Your task to perform on an android device: uninstall "Google Docs" Image 0: 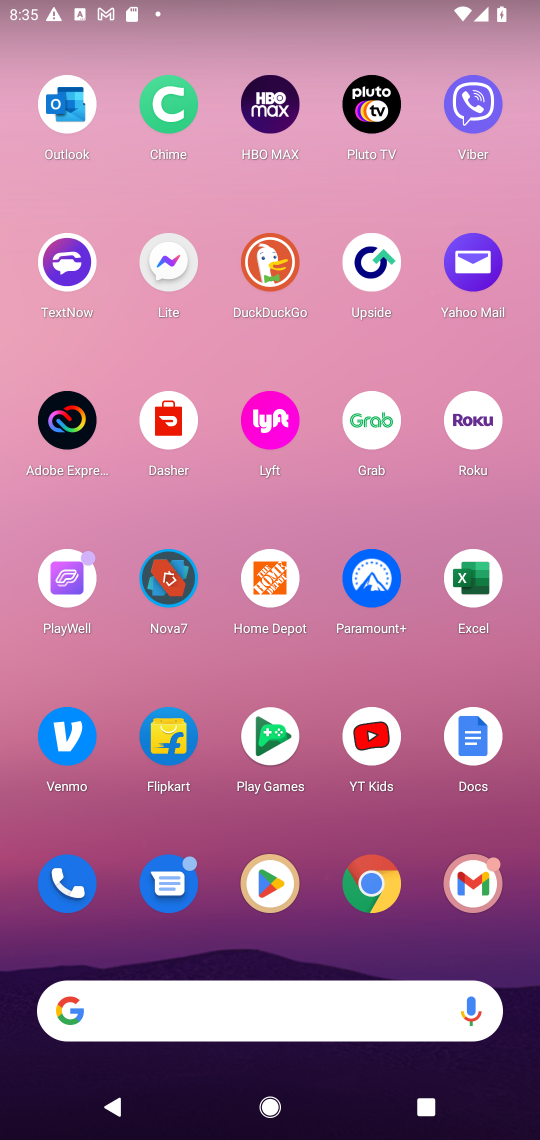
Step 0: click (240, 865)
Your task to perform on an android device: uninstall "Google Docs" Image 1: 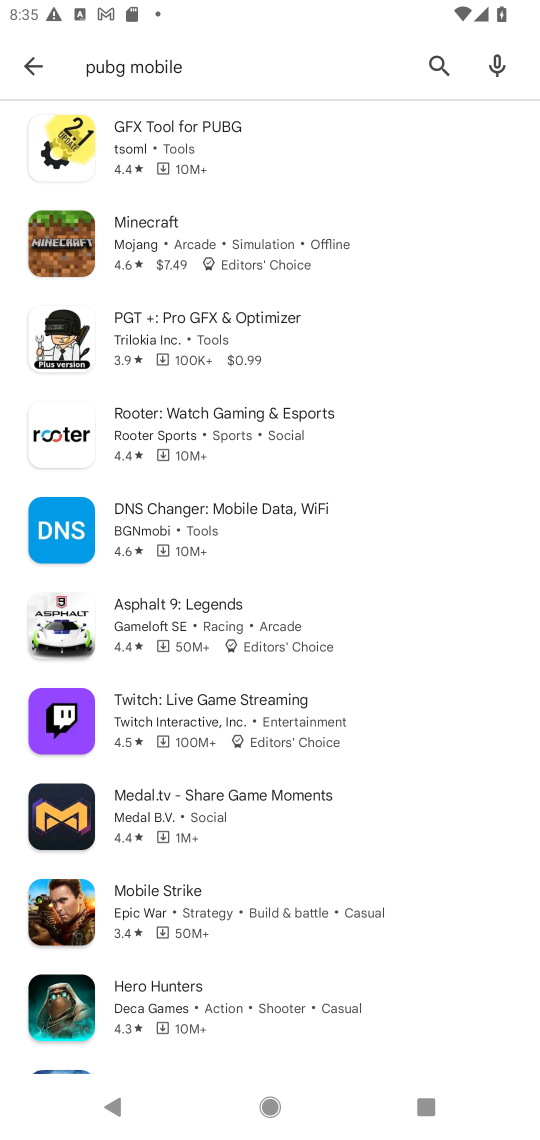
Step 1: click (440, 65)
Your task to perform on an android device: uninstall "Google Docs" Image 2: 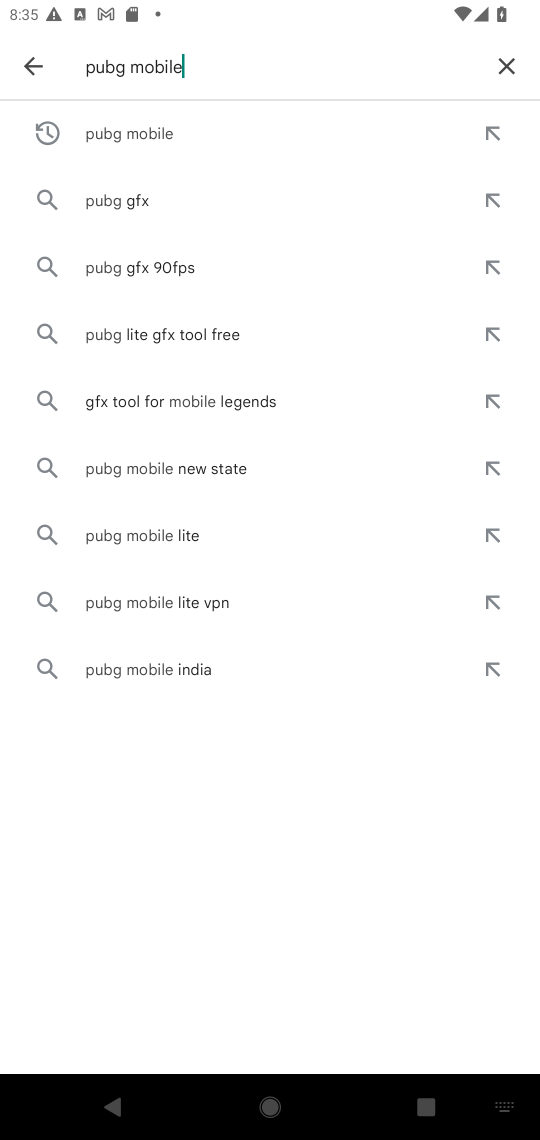
Step 2: click (490, 56)
Your task to perform on an android device: uninstall "Google Docs" Image 3: 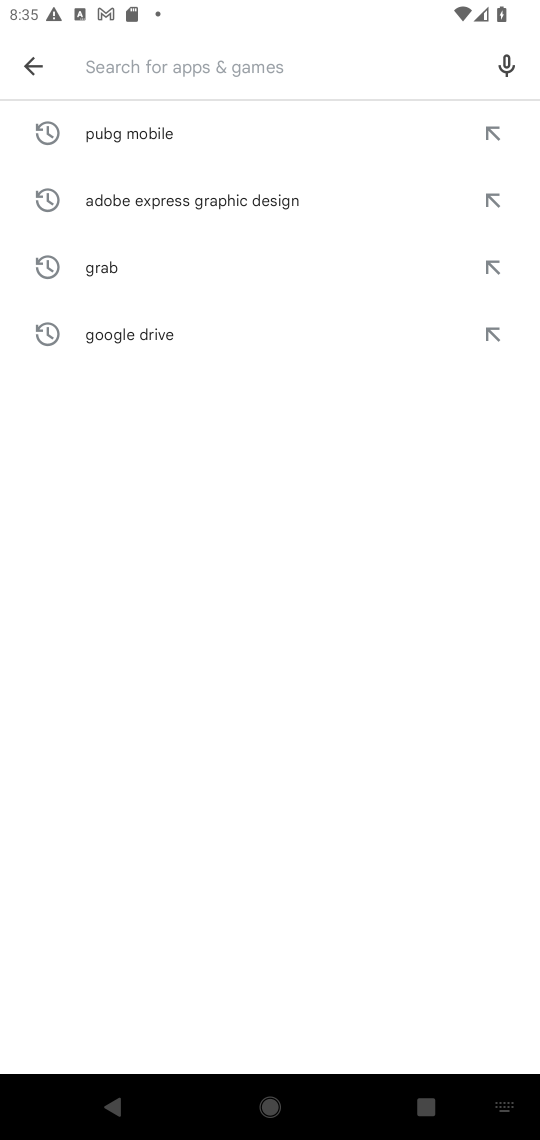
Step 3: click (120, 84)
Your task to perform on an android device: uninstall "Google Docs" Image 4: 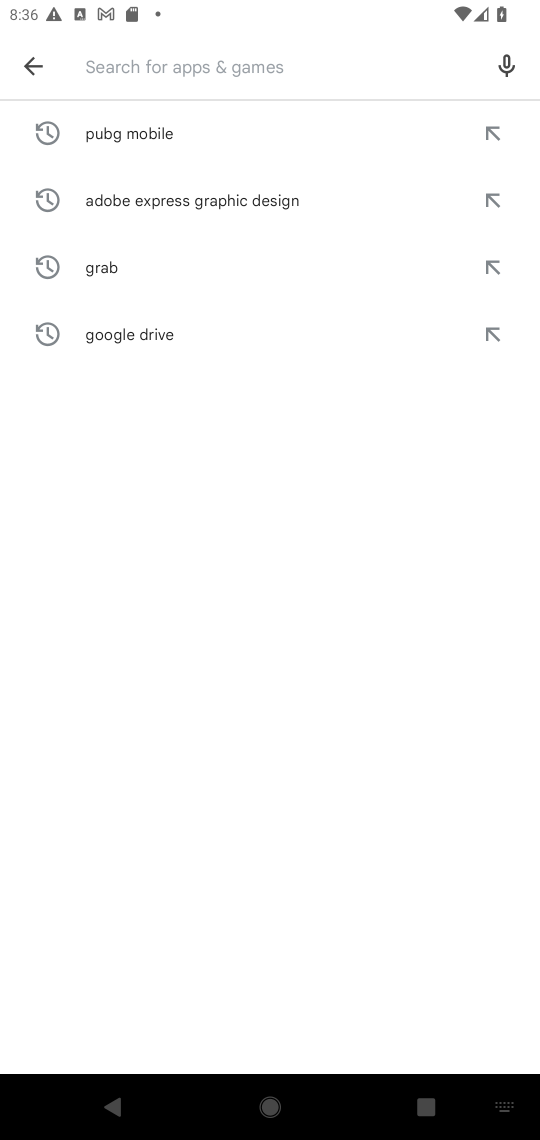
Step 4: type "Google Docs"
Your task to perform on an android device: uninstall "Google Docs" Image 5: 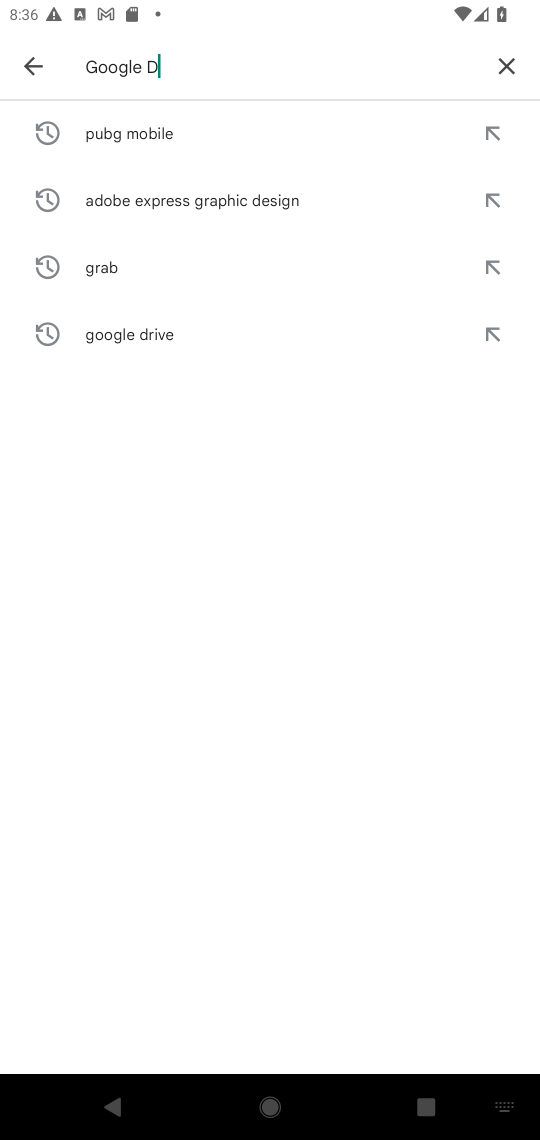
Step 5: type ""
Your task to perform on an android device: uninstall "Google Docs" Image 6: 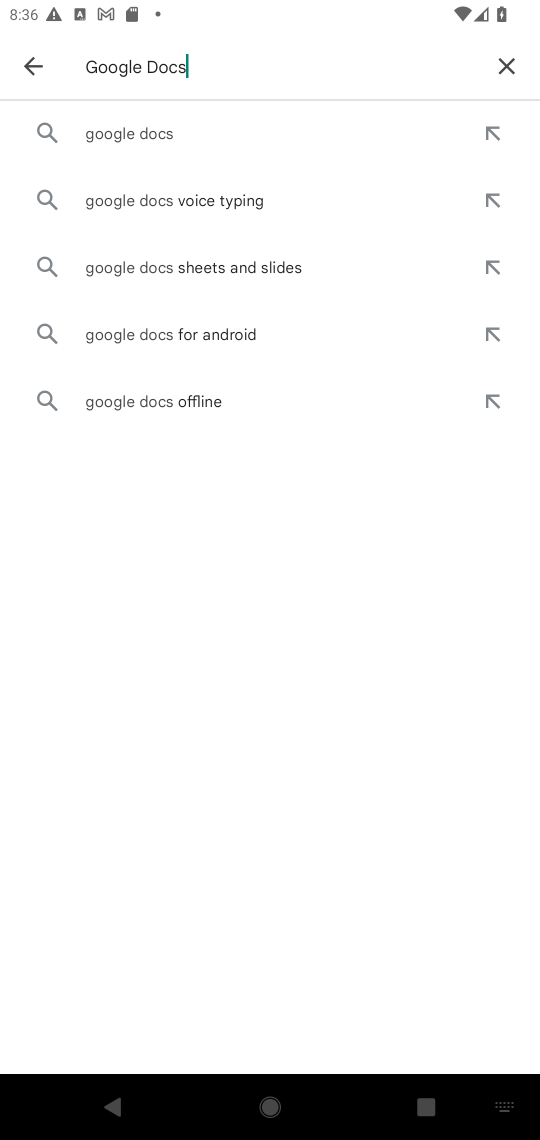
Step 6: click (137, 137)
Your task to perform on an android device: uninstall "Google Docs" Image 7: 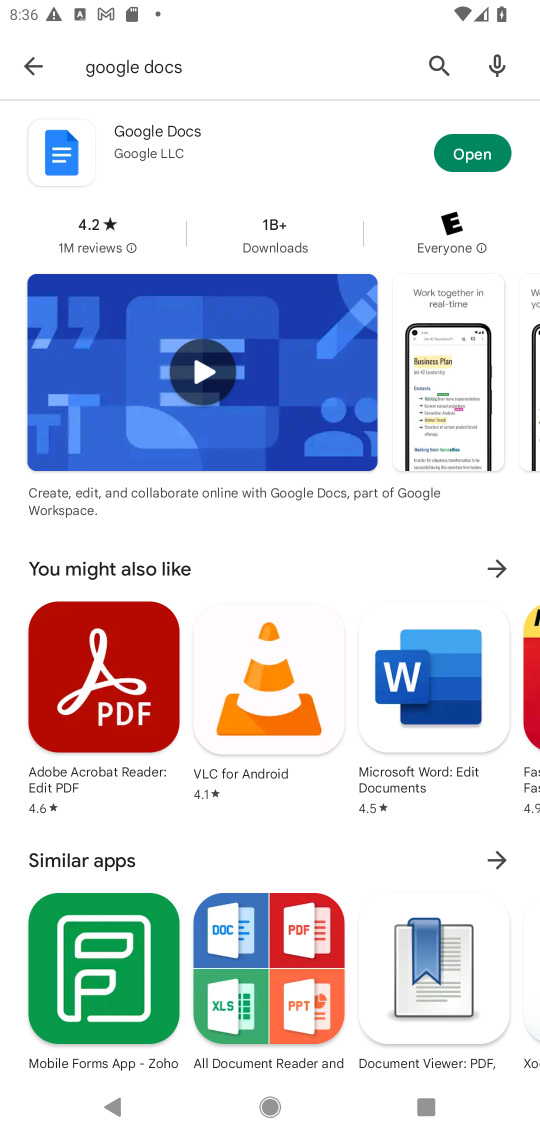
Step 7: click (169, 153)
Your task to perform on an android device: uninstall "Google Docs" Image 8: 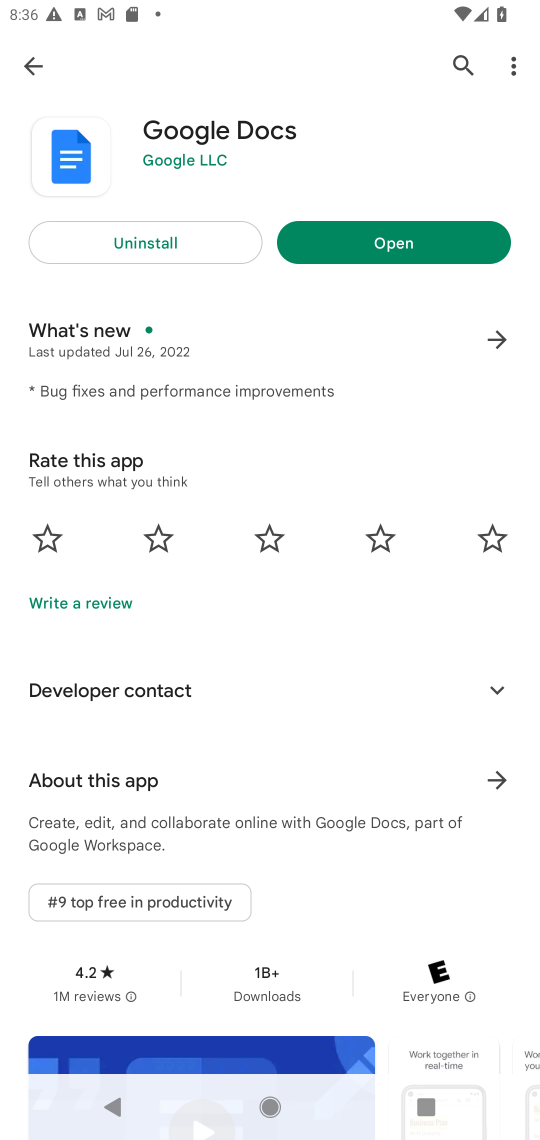
Step 8: click (217, 232)
Your task to perform on an android device: uninstall "Google Docs" Image 9: 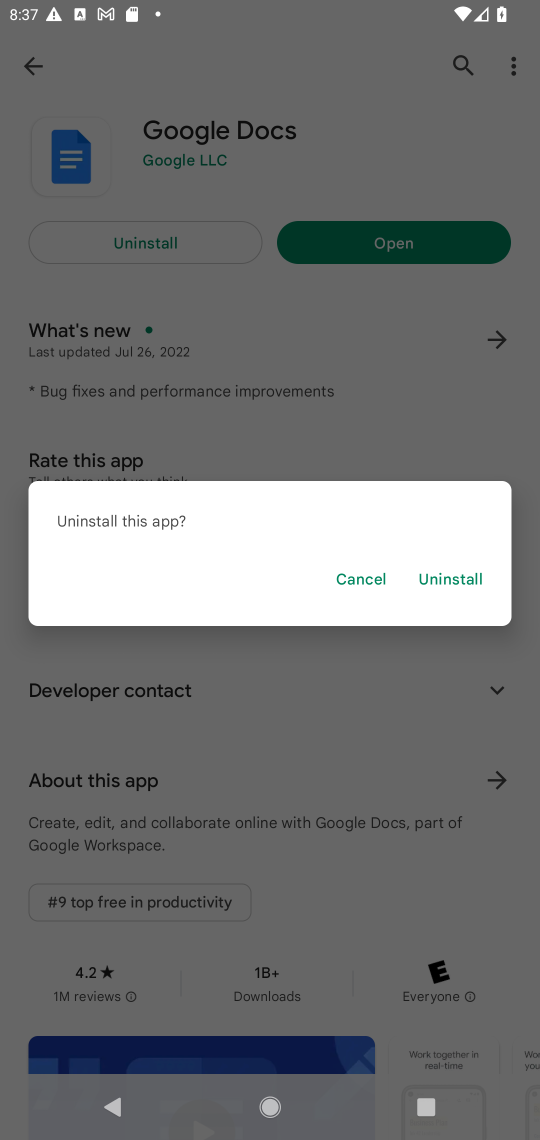
Step 9: click (434, 580)
Your task to perform on an android device: uninstall "Google Docs" Image 10: 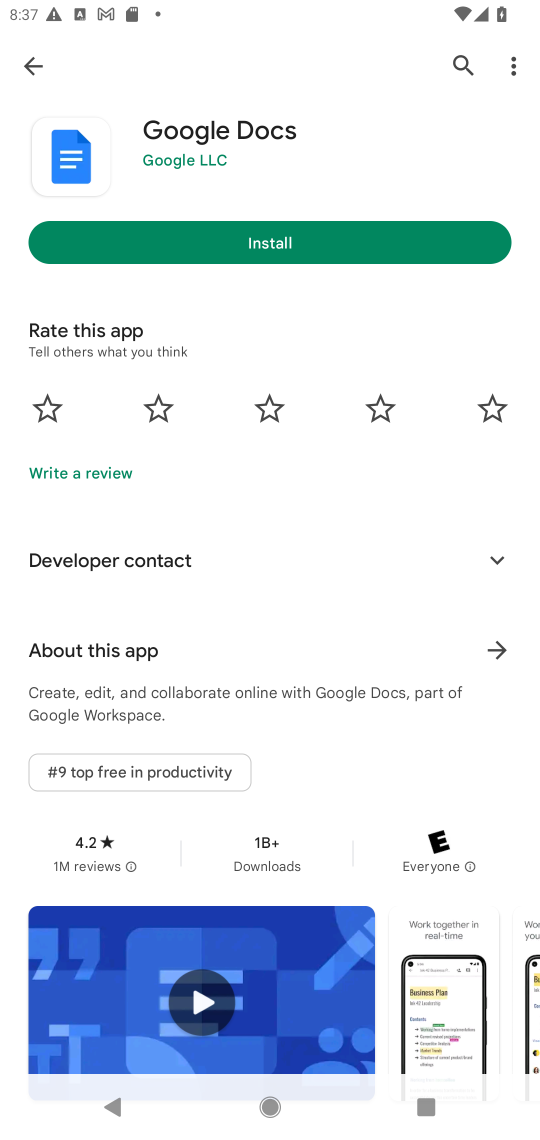
Step 10: task complete